Your task to perform on an android device: allow notifications from all sites in the chrome app Image 0: 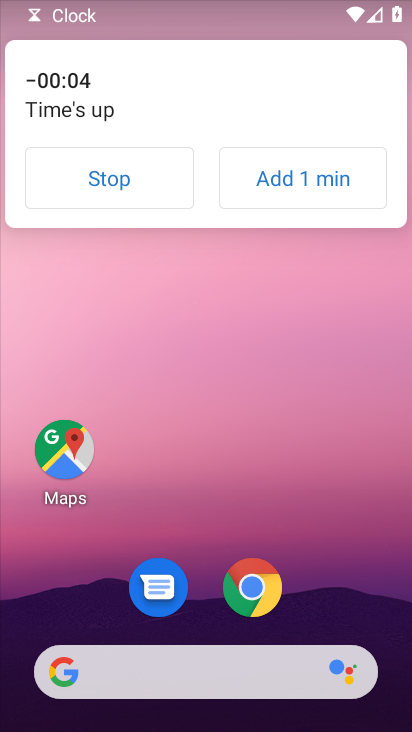
Step 0: click (99, 181)
Your task to perform on an android device: allow notifications from all sites in the chrome app Image 1: 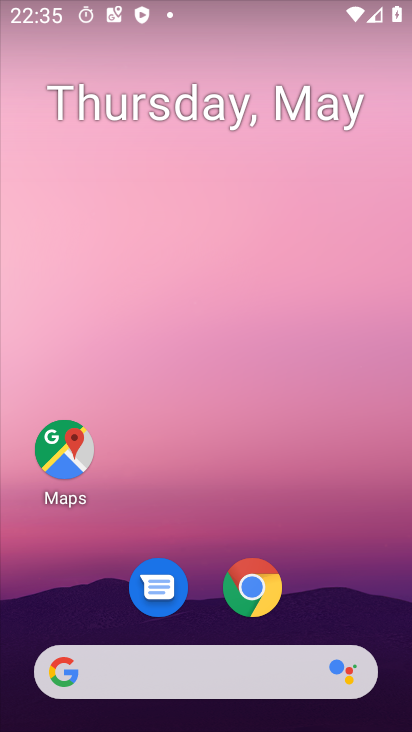
Step 1: click (246, 594)
Your task to perform on an android device: allow notifications from all sites in the chrome app Image 2: 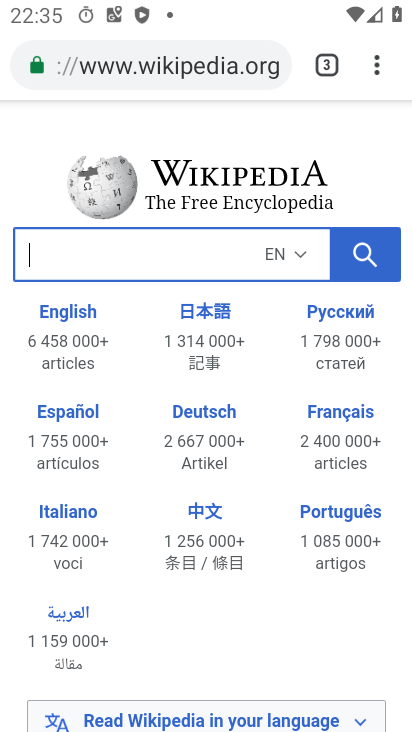
Step 2: click (376, 63)
Your task to perform on an android device: allow notifications from all sites in the chrome app Image 3: 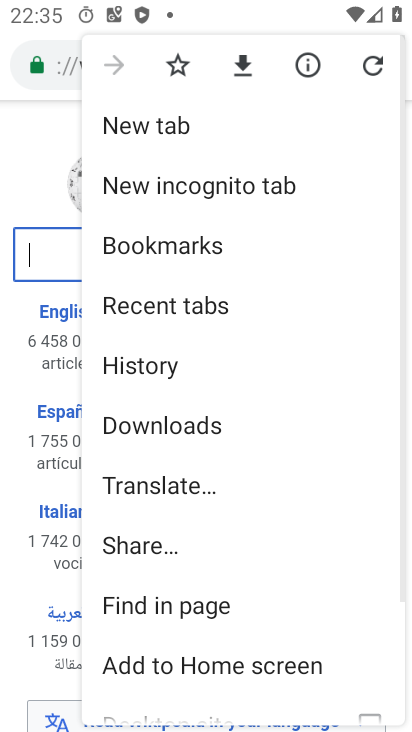
Step 3: drag from (234, 561) to (246, 215)
Your task to perform on an android device: allow notifications from all sites in the chrome app Image 4: 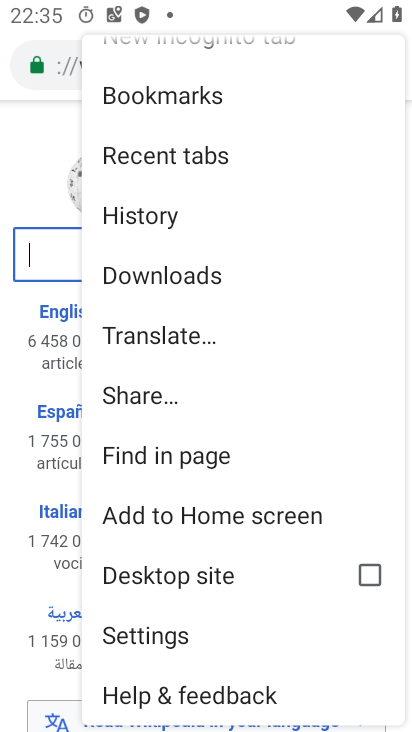
Step 4: click (152, 641)
Your task to perform on an android device: allow notifications from all sites in the chrome app Image 5: 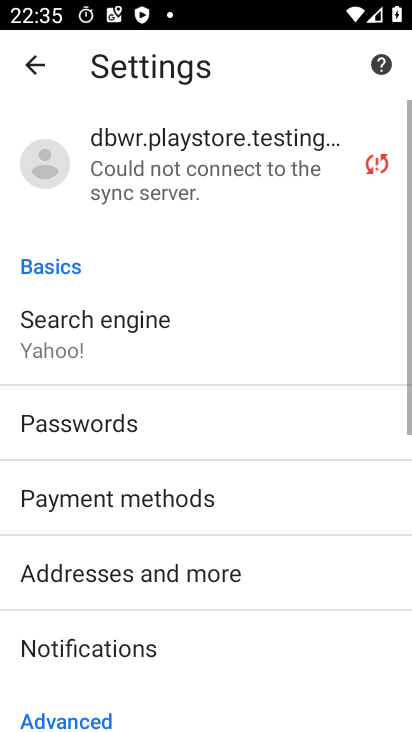
Step 5: drag from (152, 641) to (133, 339)
Your task to perform on an android device: allow notifications from all sites in the chrome app Image 6: 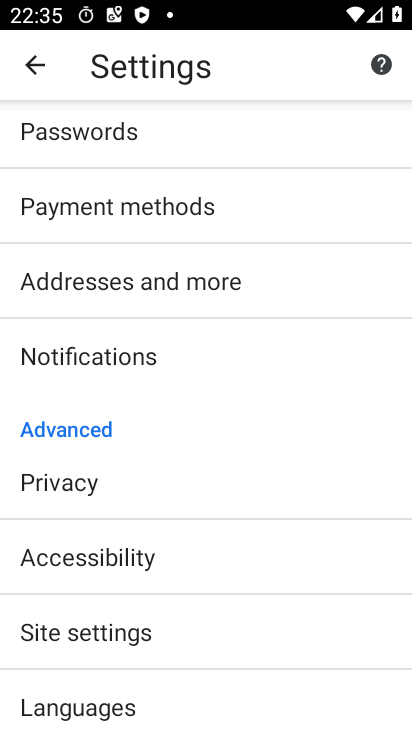
Step 6: click (126, 350)
Your task to perform on an android device: allow notifications from all sites in the chrome app Image 7: 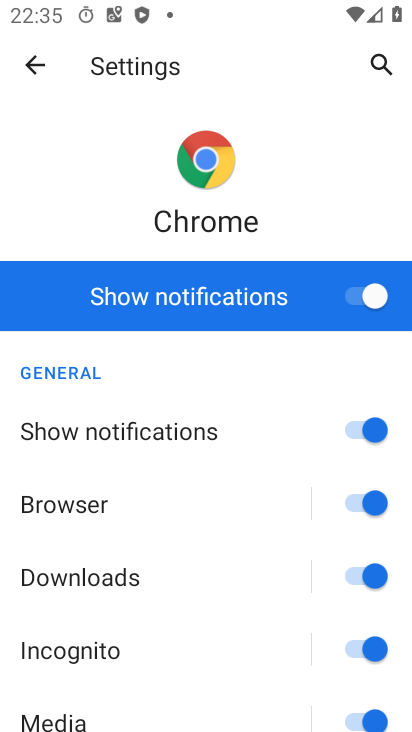
Step 7: task complete